Your task to perform on an android device: toggle sleep mode Image 0: 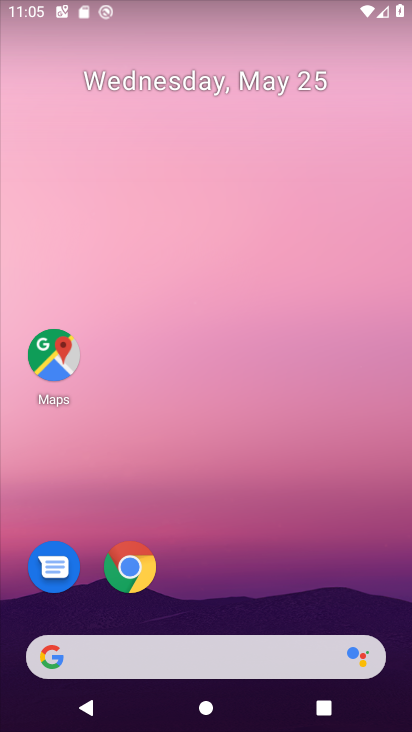
Step 0: drag from (212, 615) to (235, 51)
Your task to perform on an android device: toggle sleep mode Image 1: 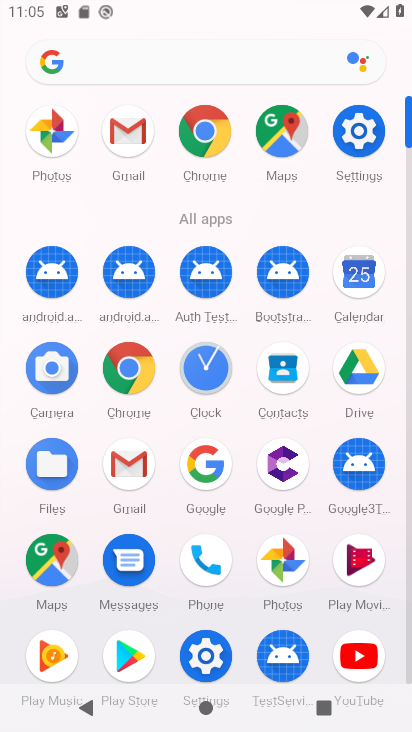
Step 1: click (359, 128)
Your task to perform on an android device: toggle sleep mode Image 2: 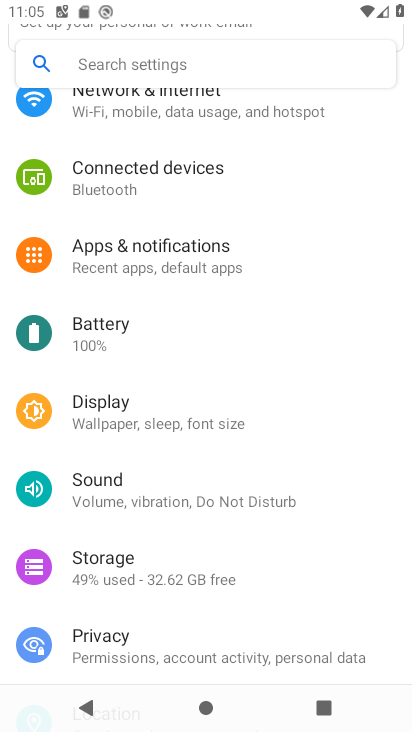
Step 2: click (188, 409)
Your task to perform on an android device: toggle sleep mode Image 3: 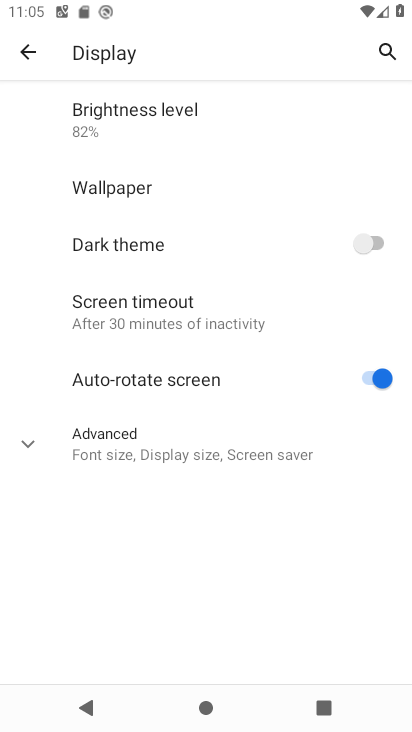
Step 3: click (187, 442)
Your task to perform on an android device: toggle sleep mode Image 4: 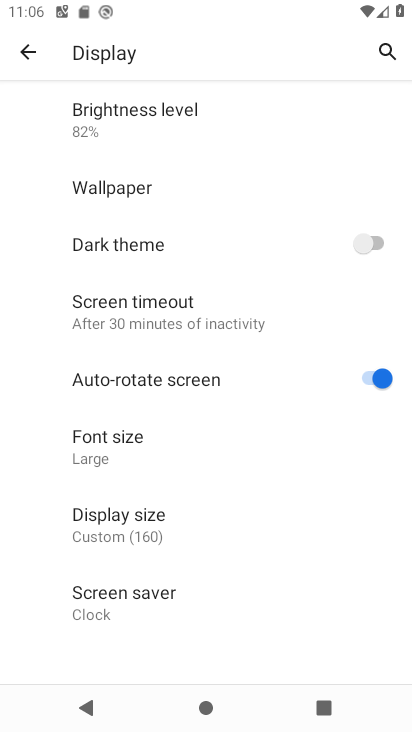
Step 4: task complete